Your task to perform on an android device: change the clock display to show seconds Image 0: 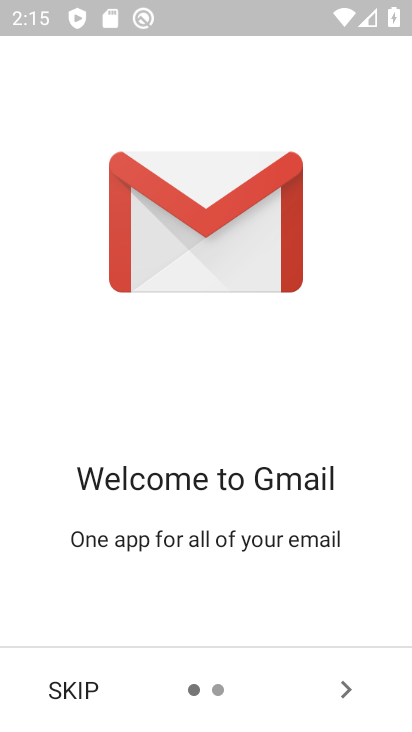
Step 0: press home button
Your task to perform on an android device: change the clock display to show seconds Image 1: 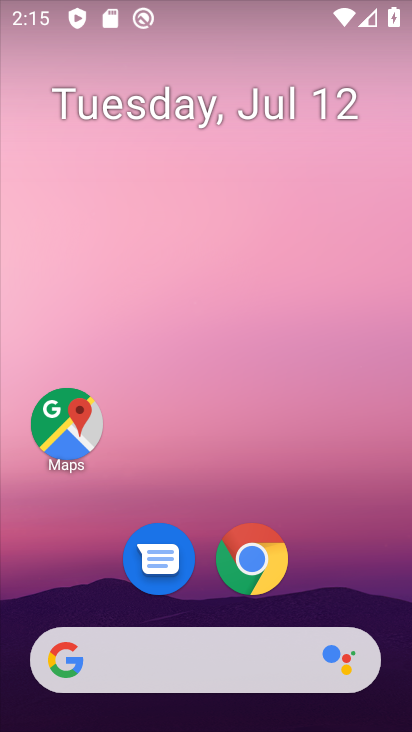
Step 1: drag from (373, 577) to (352, 216)
Your task to perform on an android device: change the clock display to show seconds Image 2: 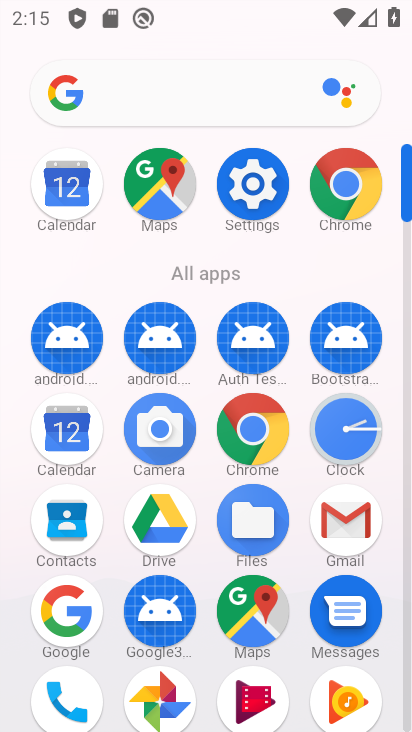
Step 2: click (345, 431)
Your task to perform on an android device: change the clock display to show seconds Image 3: 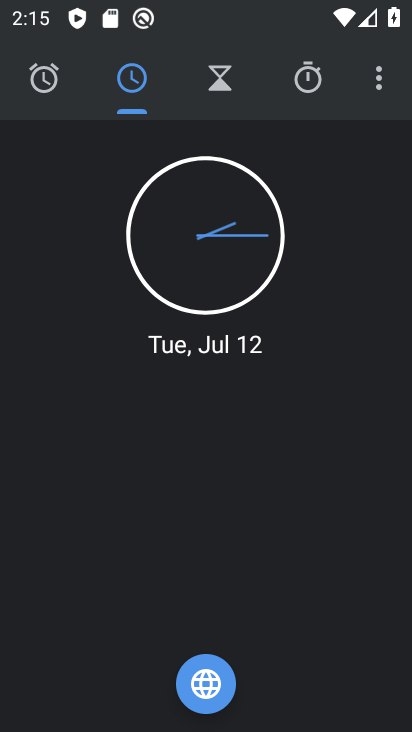
Step 3: click (379, 93)
Your task to perform on an android device: change the clock display to show seconds Image 4: 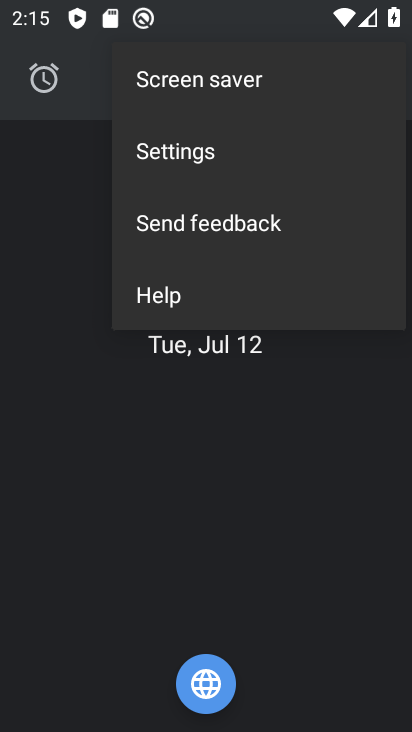
Step 4: click (287, 155)
Your task to perform on an android device: change the clock display to show seconds Image 5: 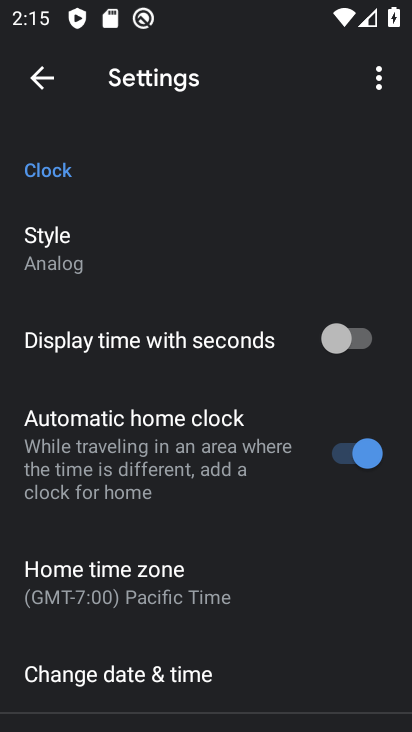
Step 5: click (336, 360)
Your task to perform on an android device: change the clock display to show seconds Image 6: 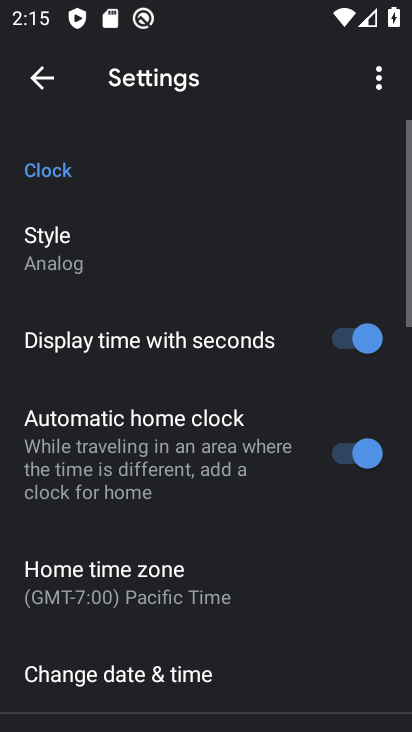
Step 6: task complete